Your task to perform on an android device: find snoozed emails in the gmail app Image 0: 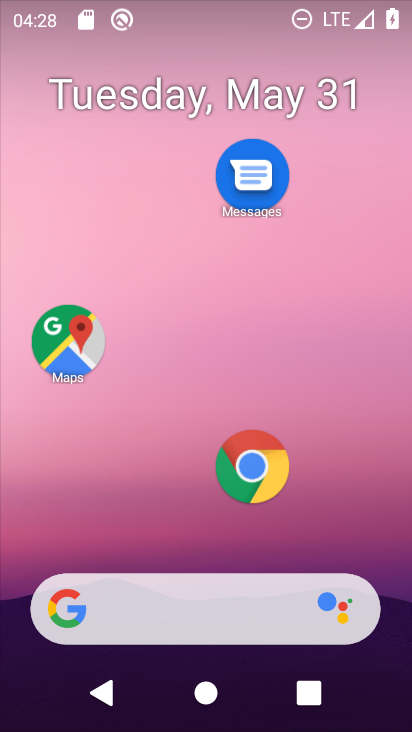
Step 0: drag from (107, 549) to (211, 27)
Your task to perform on an android device: find snoozed emails in the gmail app Image 1: 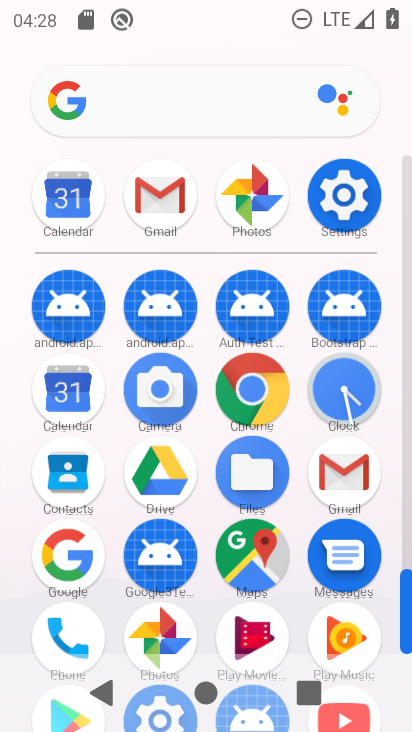
Step 1: click (146, 192)
Your task to perform on an android device: find snoozed emails in the gmail app Image 2: 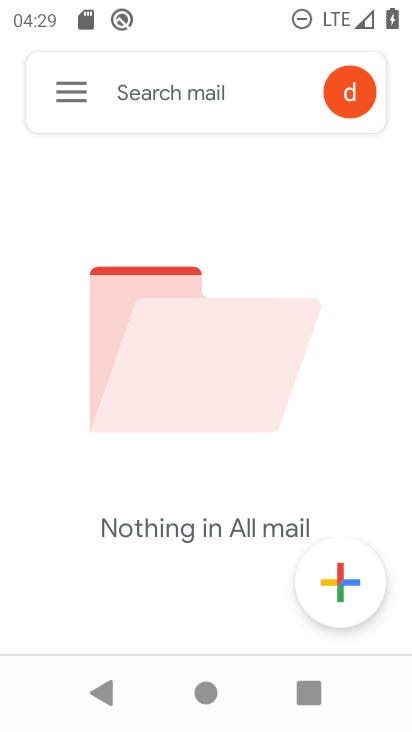
Step 2: click (60, 81)
Your task to perform on an android device: find snoozed emails in the gmail app Image 3: 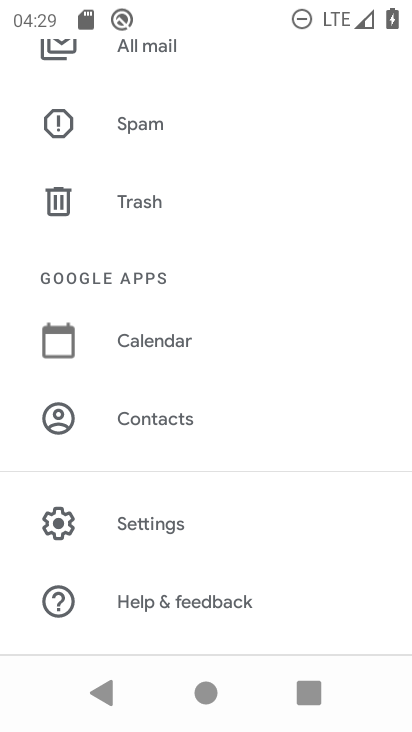
Step 3: drag from (159, 175) to (136, 597)
Your task to perform on an android device: find snoozed emails in the gmail app Image 4: 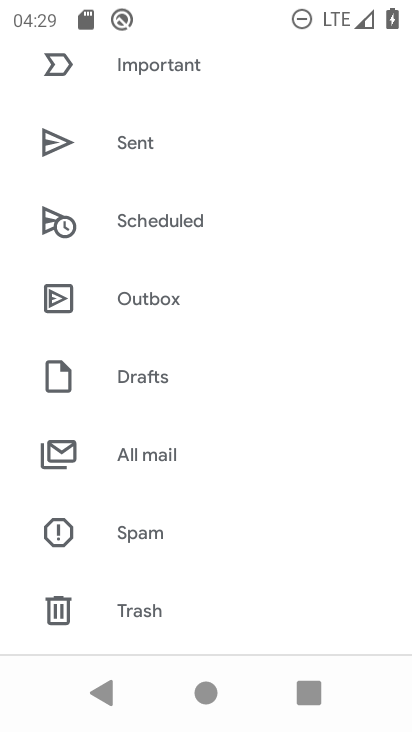
Step 4: drag from (171, 165) to (173, 626)
Your task to perform on an android device: find snoozed emails in the gmail app Image 5: 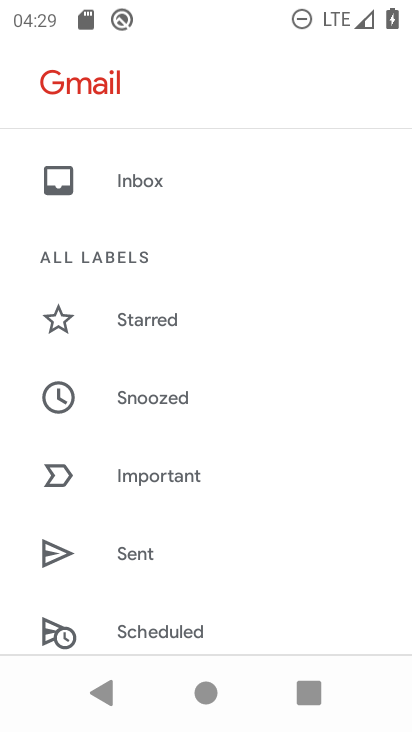
Step 5: click (172, 395)
Your task to perform on an android device: find snoozed emails in the gmail app Image 6: 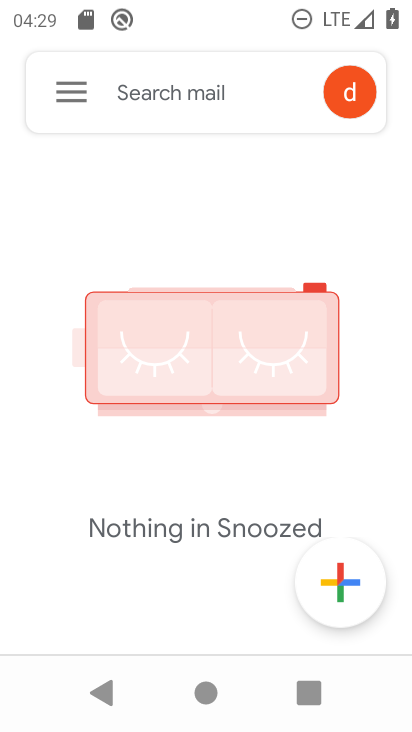
Step 6: task complete